Your task to perform on an android device: Is it going to rain tomorrow? Image 0: 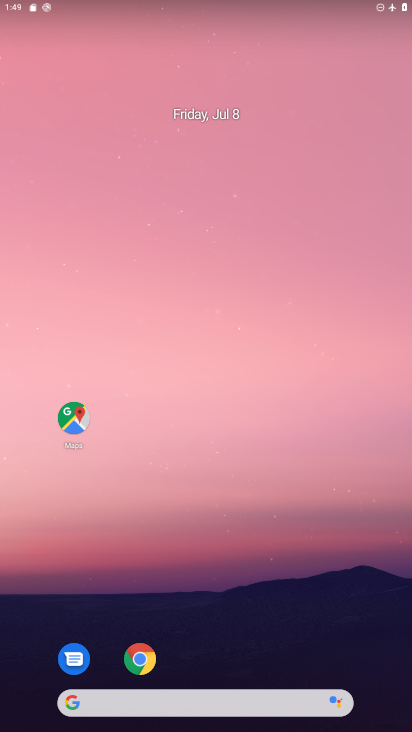
Step 0: drag from (217, 664) to (283, 177)
Your task to perform on an android device: Is it going to rain tomorrow? Image 1: 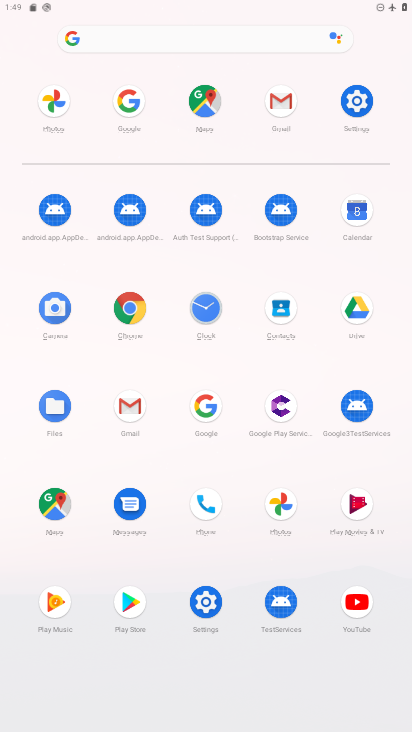
Step 1: click (124, 103)
Your task to perform on an android device: Is it going to rain tomorrow? Image 2: 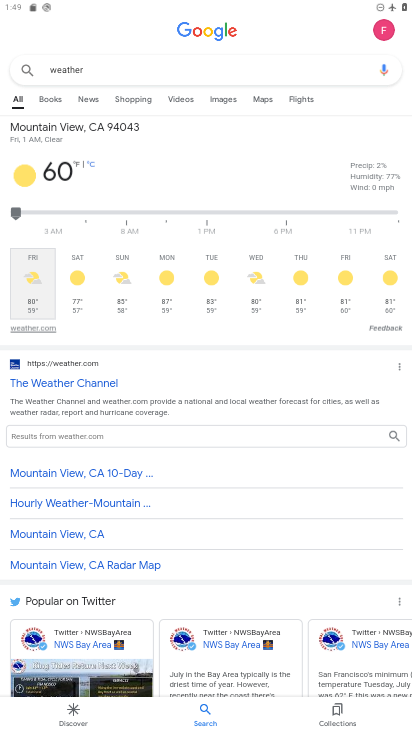
Step 2: click (133, 71)
Your task to perform on an android device: Is it going to rain tomorrow? Image 3: 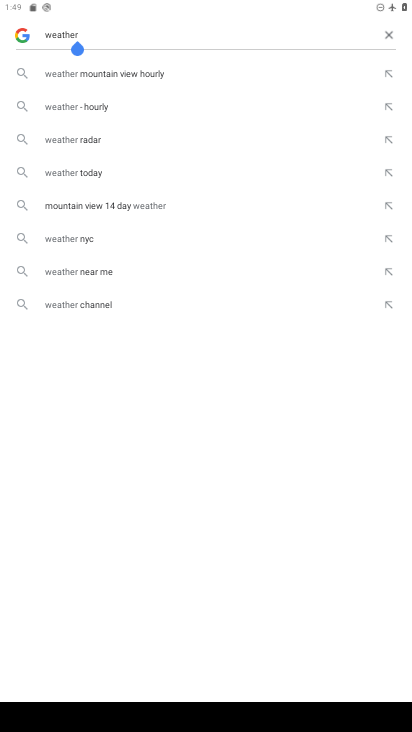
Step 3: click (390, 32)
Your task to perform on an android device: Is it going to rain tomorrow? Image 4: 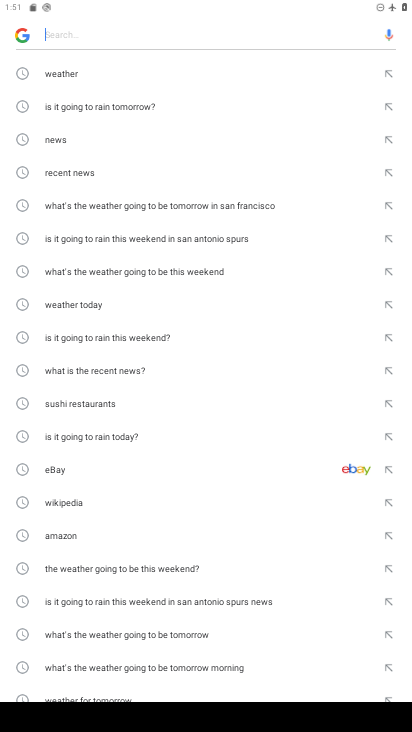
Step 4: type "is it going to rain tomorrow?"
Your task to perform on an android device: Is it going to rain tomorrow? Image 5: 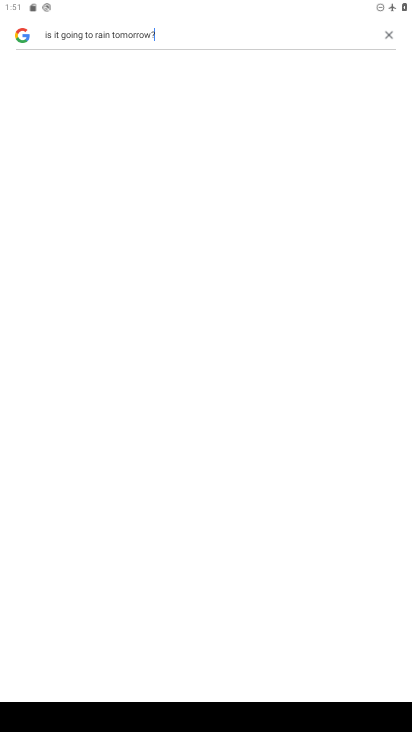
Step 5: task complete